Your task to perform on an android device: Open calendar and show me the first week of next month Image 0: 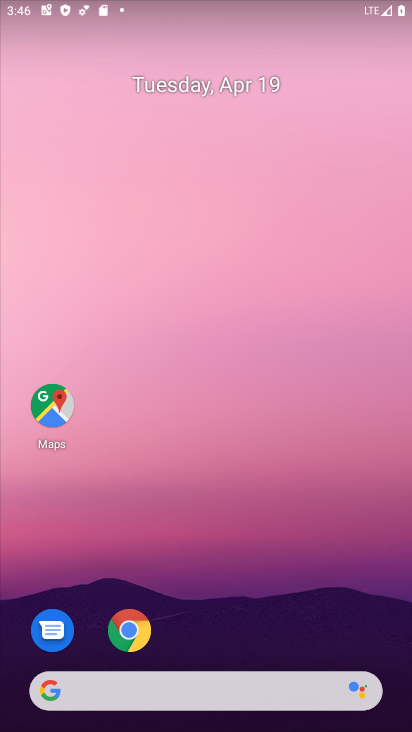
Step 0: drag from (209, 647) to (198, 106)
Your task to perform on an android device: Open calendar and show me the first week of next month Image 1: 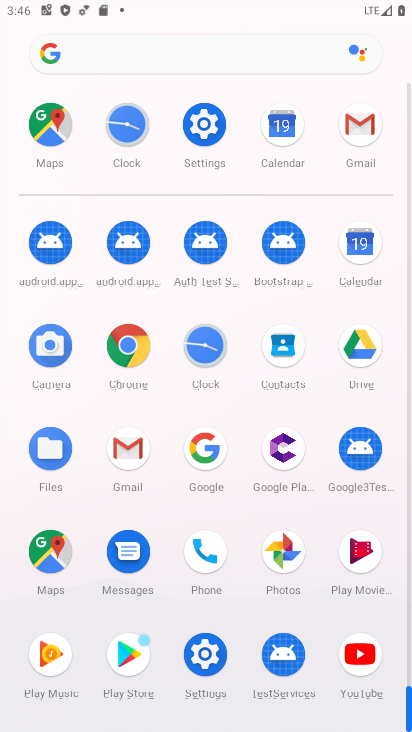
Step 1: click (359, 251)
Your task to perform on an android device: Open calendar and show me the first week of next month Image 2: 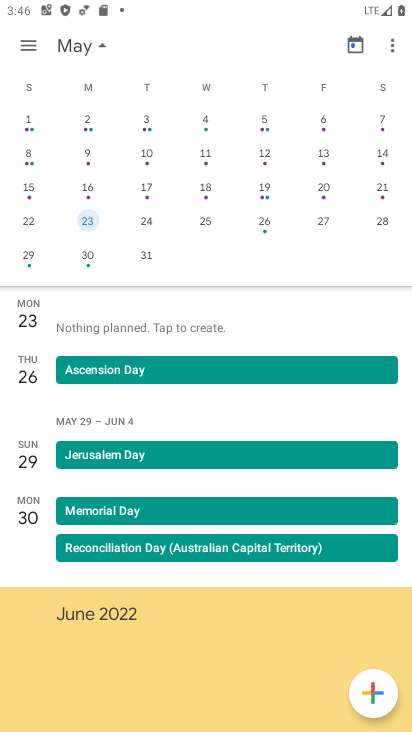
Step 2: click (87, 120)
Your task to perform on an android device: Open calendar and show me the first week of next month Image 3: 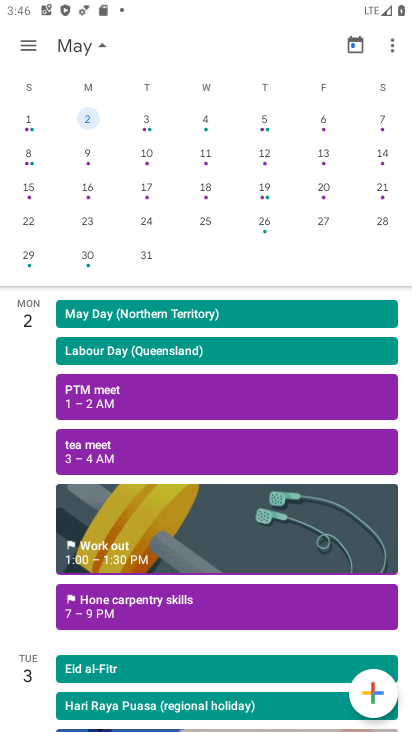
Step 3: task complete